Your task to perform on an android device: Set the phone to "Do not disturb". Image 0: 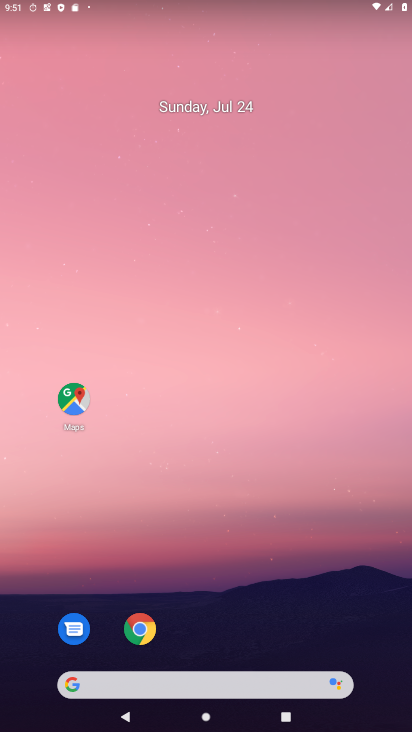
Step 0: drag from (238, 597) to (407, 274)
Your task to perform on an android device: Set the phone to "Do not disturb". Image 1: 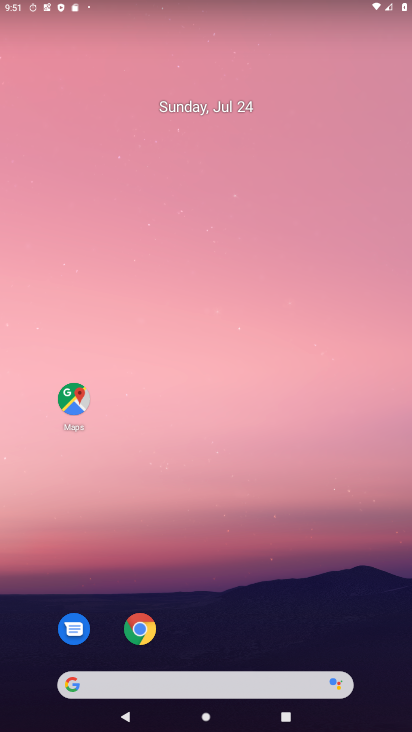
Step 1: drag from (296, 526) to (300, 112)
Your task to perform on an android device: Set the phone to "Do not disturb". Image 2: 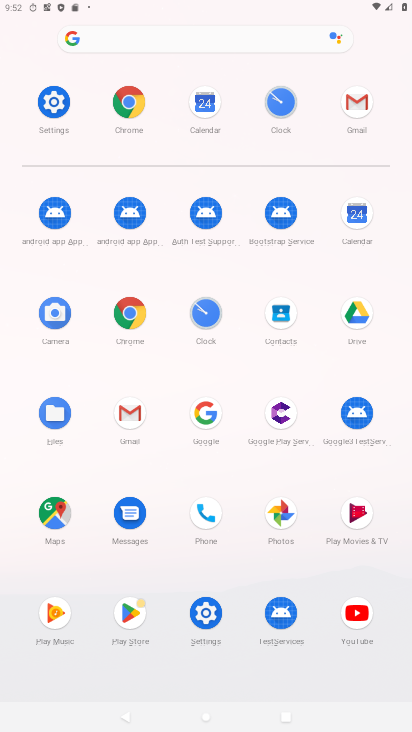
Step 2: drag from (230, 16) to (112, 606)
Your task to perform on an android device: Set the phone to "Do not disturb". Image 3: 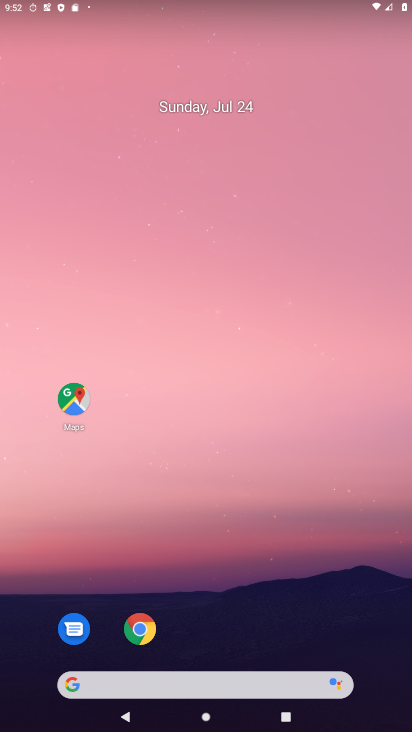
Step 3: drag from (266, 14) to (223, 477)
Your task to perform on an android device: Set the phone to "Do not disturb". Image 4: 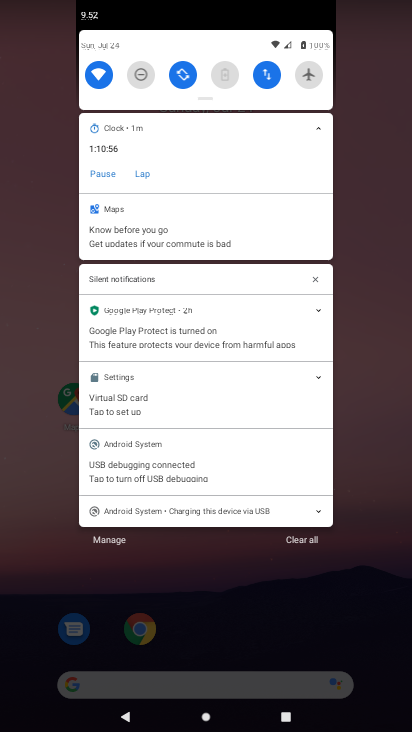
Step 4: drag from (192, 105) to (141, 667)
Your task to perform on an android device: Set the phone to "Do not disturb". Image 5: 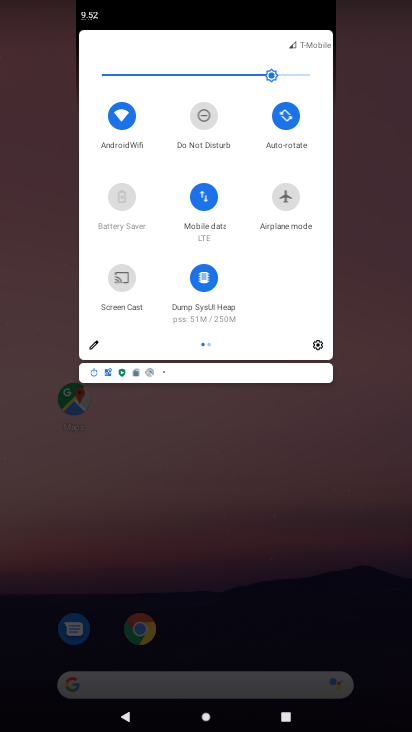
Step 5: click (205, 119)
Your task to perform on an android device: Set the phone to "Do not disturb". Image 6: 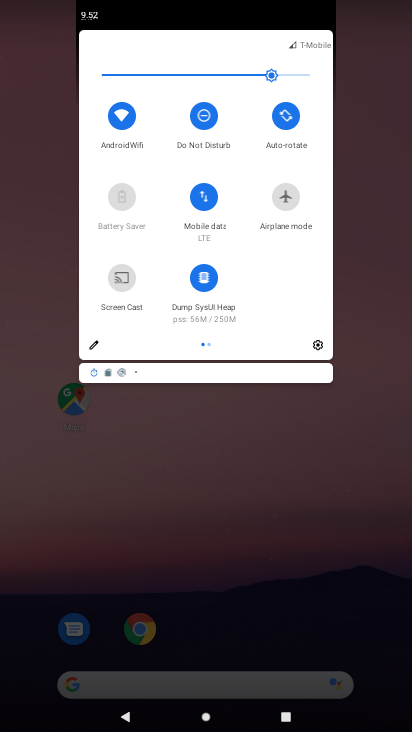
Step 6: task complete